Your task to perform on an android device: What is the recent news? Image 0: 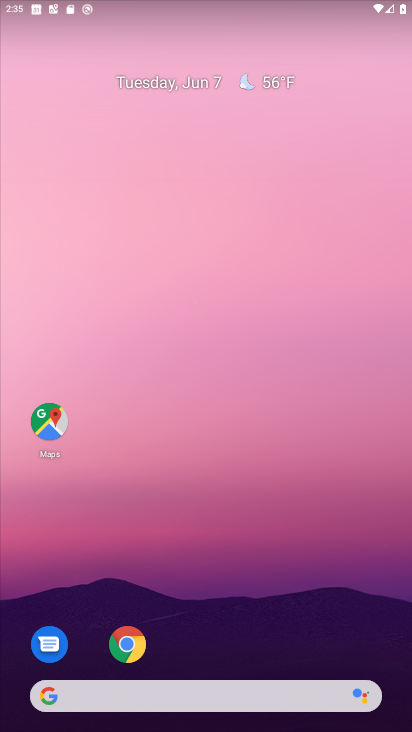
Step 0: press home button
Your task to perform on an android device: What is the recent news? Image 1: 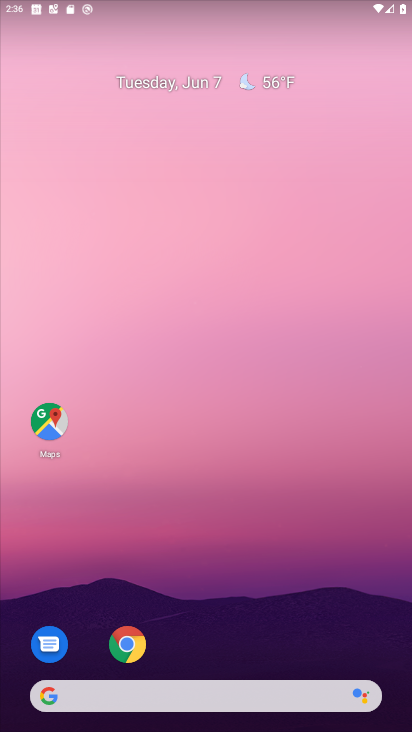
Step 1: task complete